Your task to perform on an android device: turn on data saver in the chrome app Image 0: 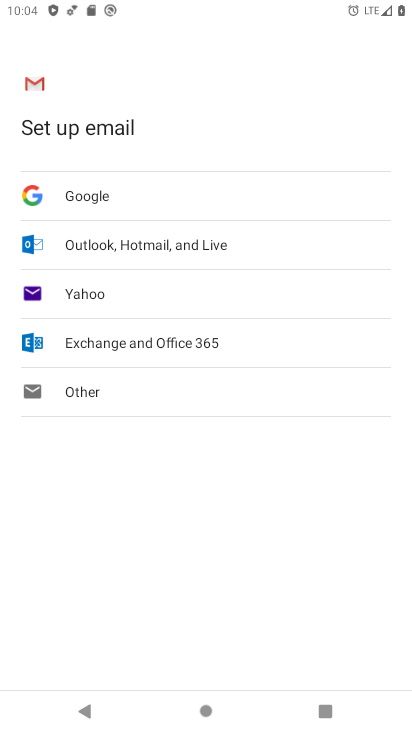
Step 0: press home button
Your task to perform on an android device: turn on data saver in the chrome app Image 1: 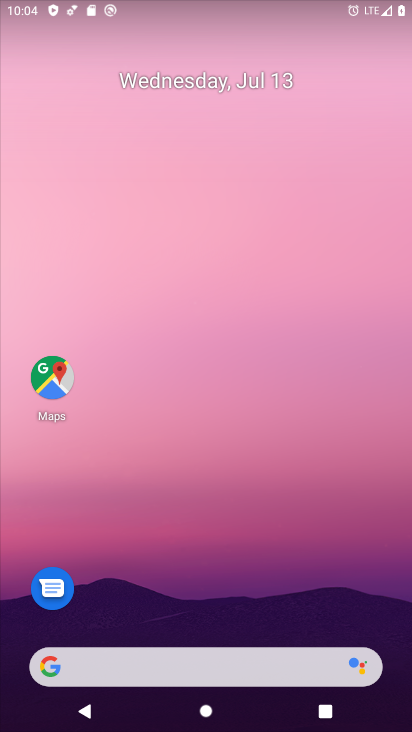
Step 1: drag from (241, 702) to (205, 239)
Your task to perform on an android device: turn on data saver in the chrome app Image 2: 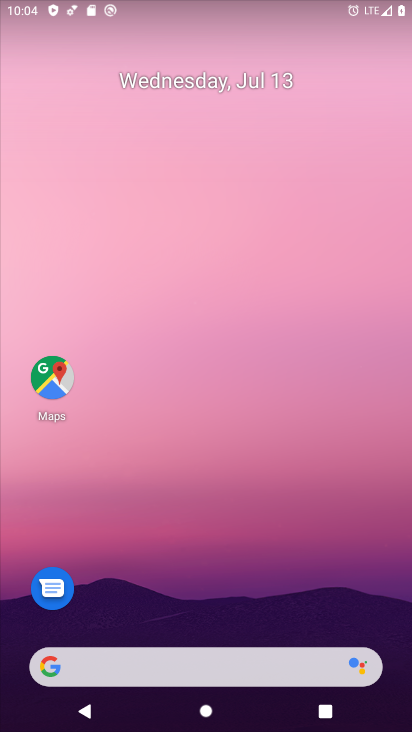
Step 2: drag from (136, 644) to (172, 14)
Your task to perform on an android device: turn on data saver in the chrome app Image 3: 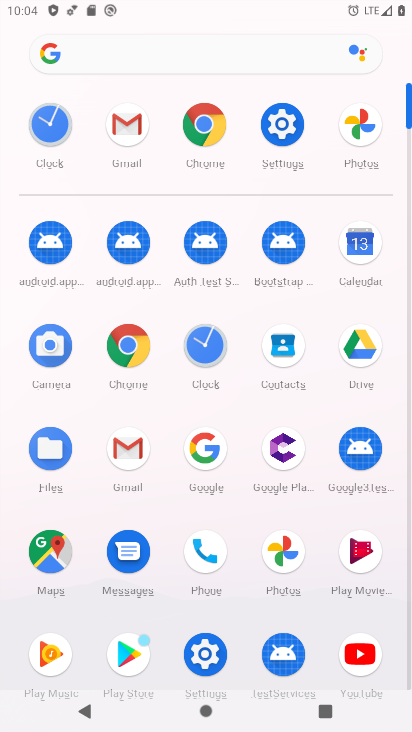
Step 3: click (205, 130)
Your task to perform on an android device: turn on data saver in the chrome app Image 4: 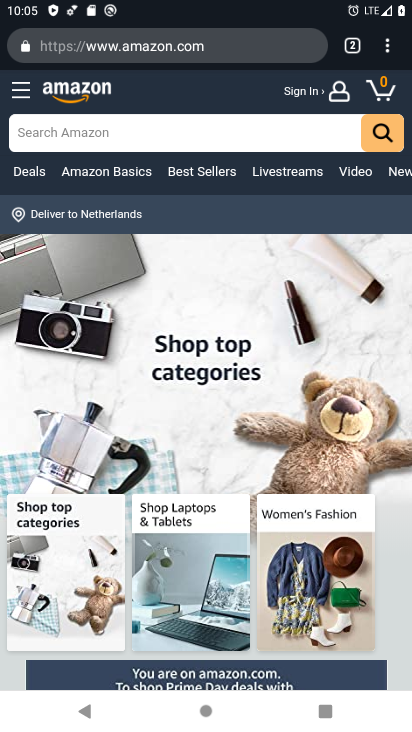
Step 4: click (390, 43)
Your task to perform on an android device: turn on data saver in the chrome app Image 5: 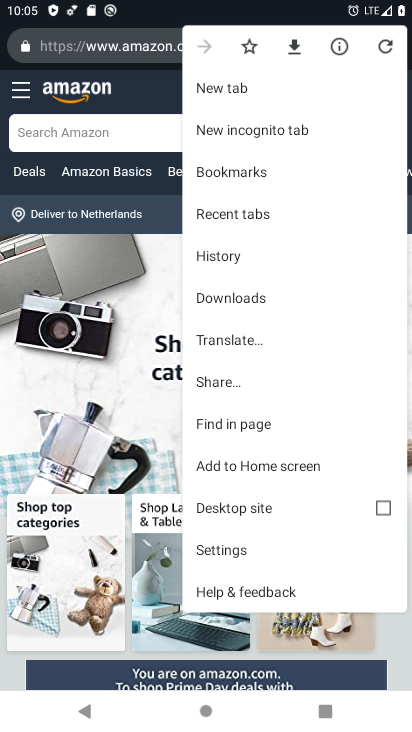
Step 5: click (236, 554)
Your task to perform on an android device: turn on data saver in the chrome app Image 6: 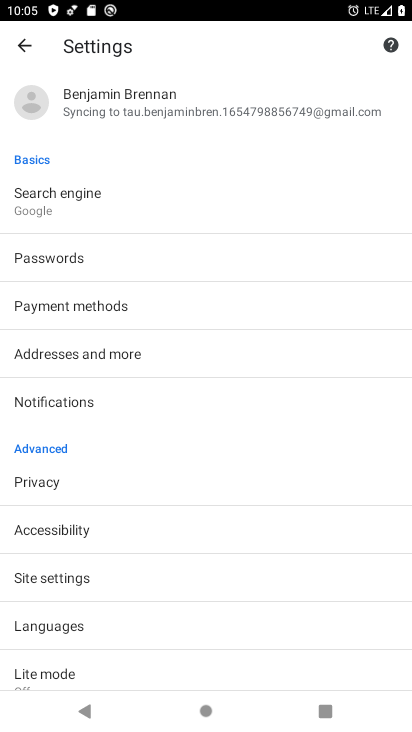
Step 6: drag from (162, 657) to (191, 244)
Your task to perform on an android device: turn on data saver in the chrome app Image 7: 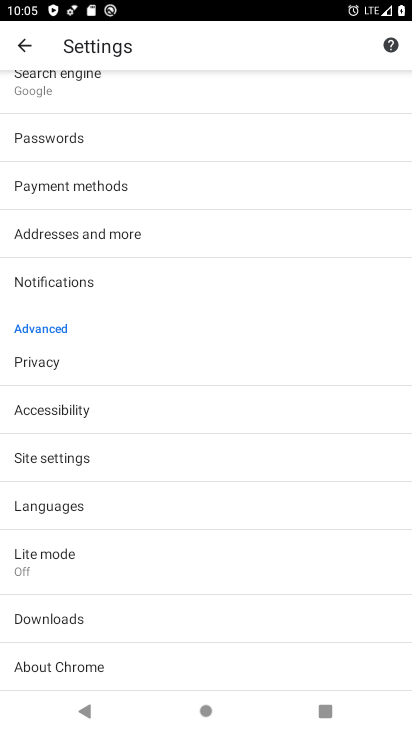
Step 7: click (70, 573)
Your task to perform on an android device: turn on data saver in the chrome app Image 8: 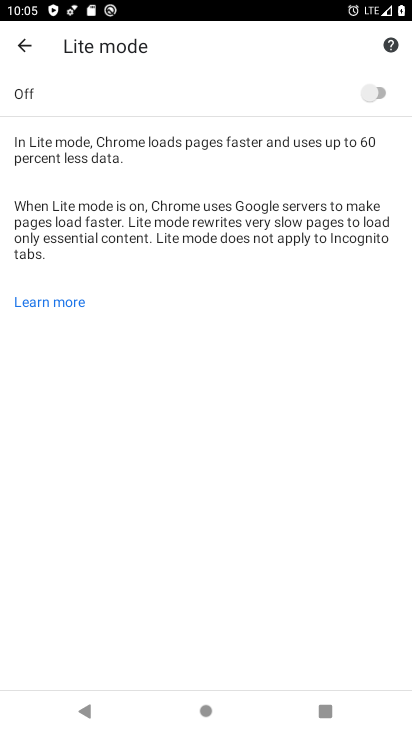
Step 8: click (381, 89)
Your task to perform on an android device: turn on data saver in the chrome app Image 9: 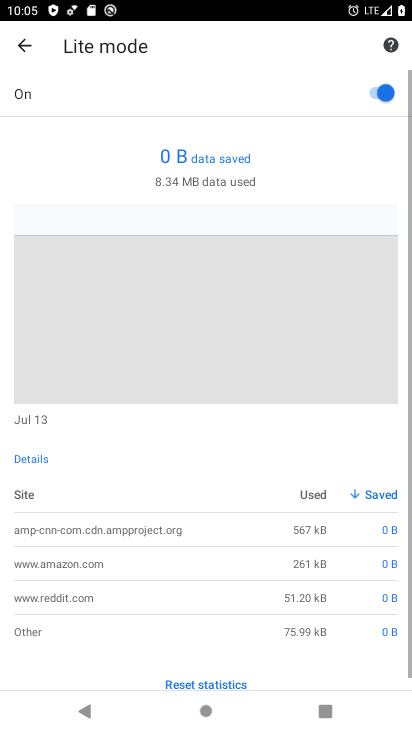
Step 9: task complete